Your task to perform on an android device: Open Yahoo.com Image 0: 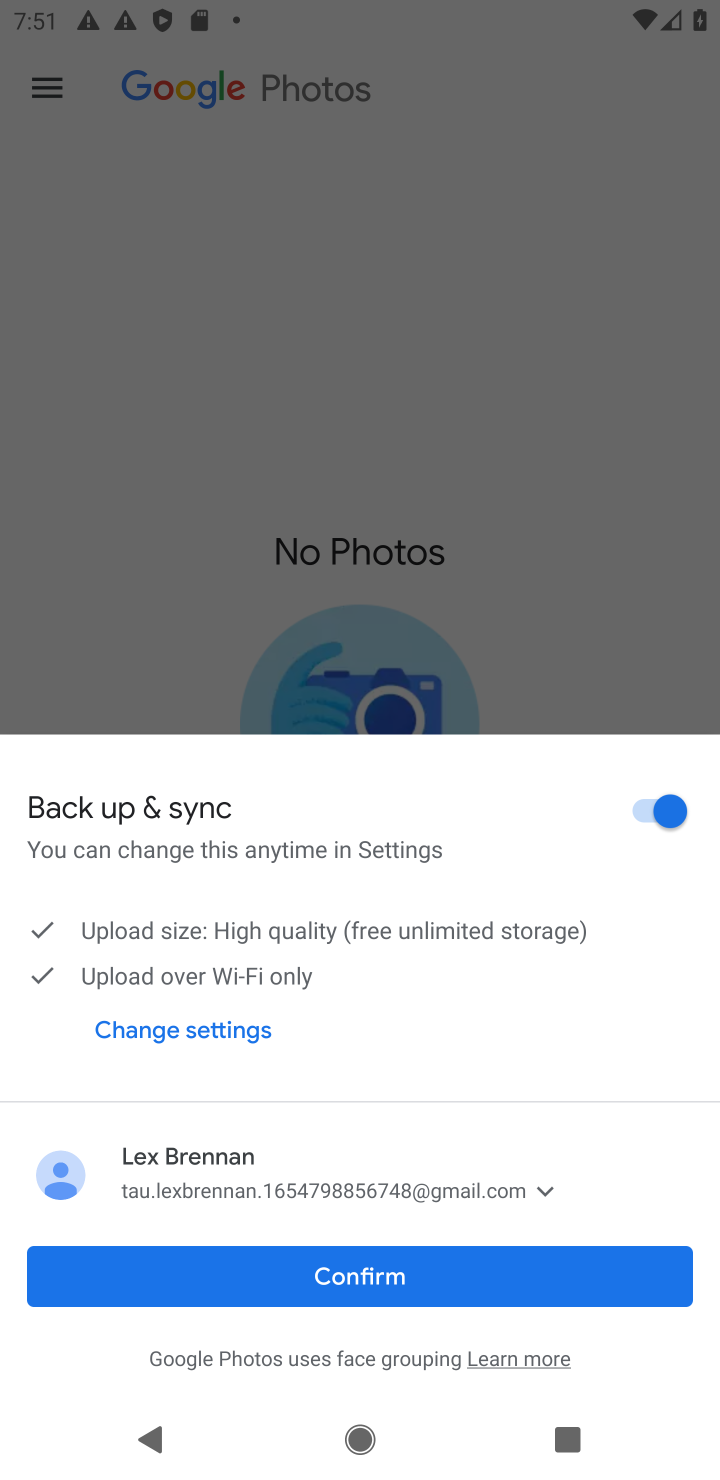
Step 0: click (656, 1285)
Your task to perform on an android device: Open Yahoo.com Image 1: 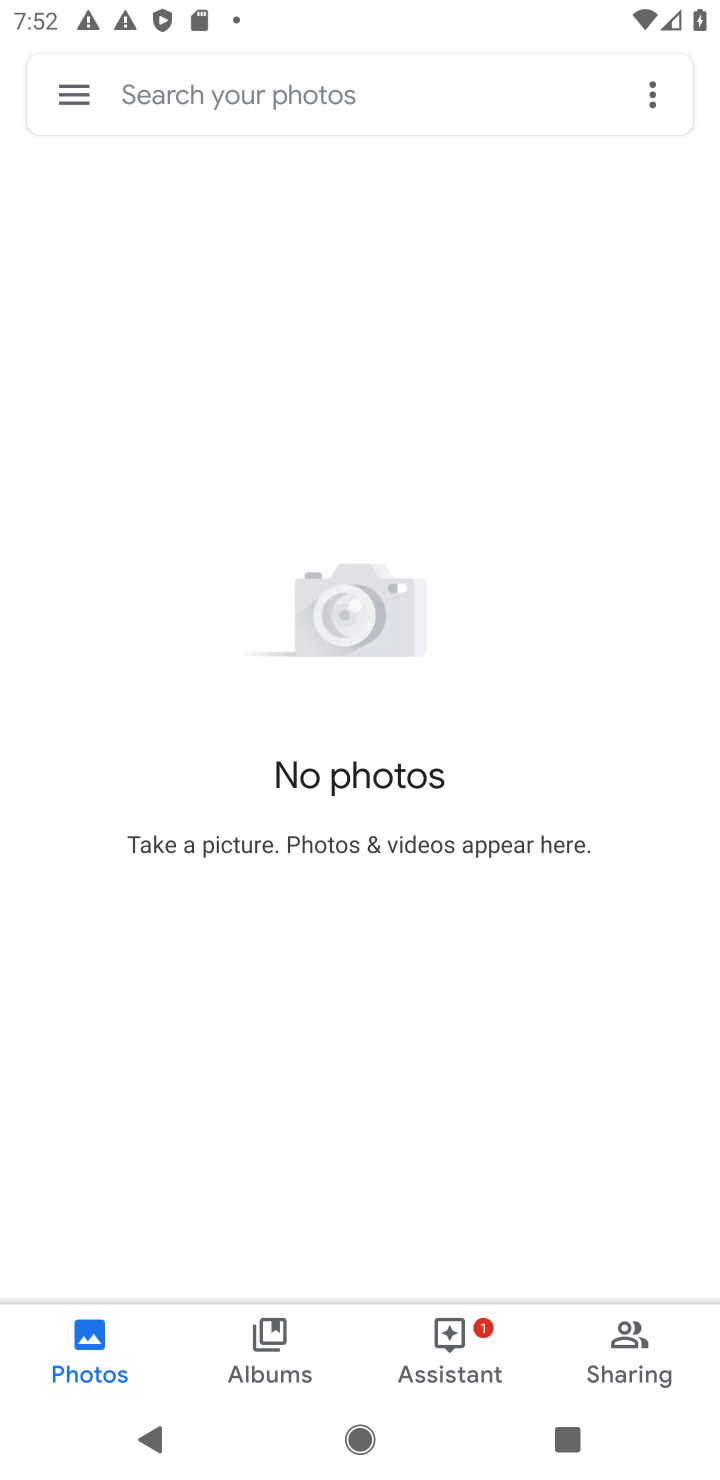
Step 1: press home button
Your task to perform on an android device: Open Yahoo.com Image 2: 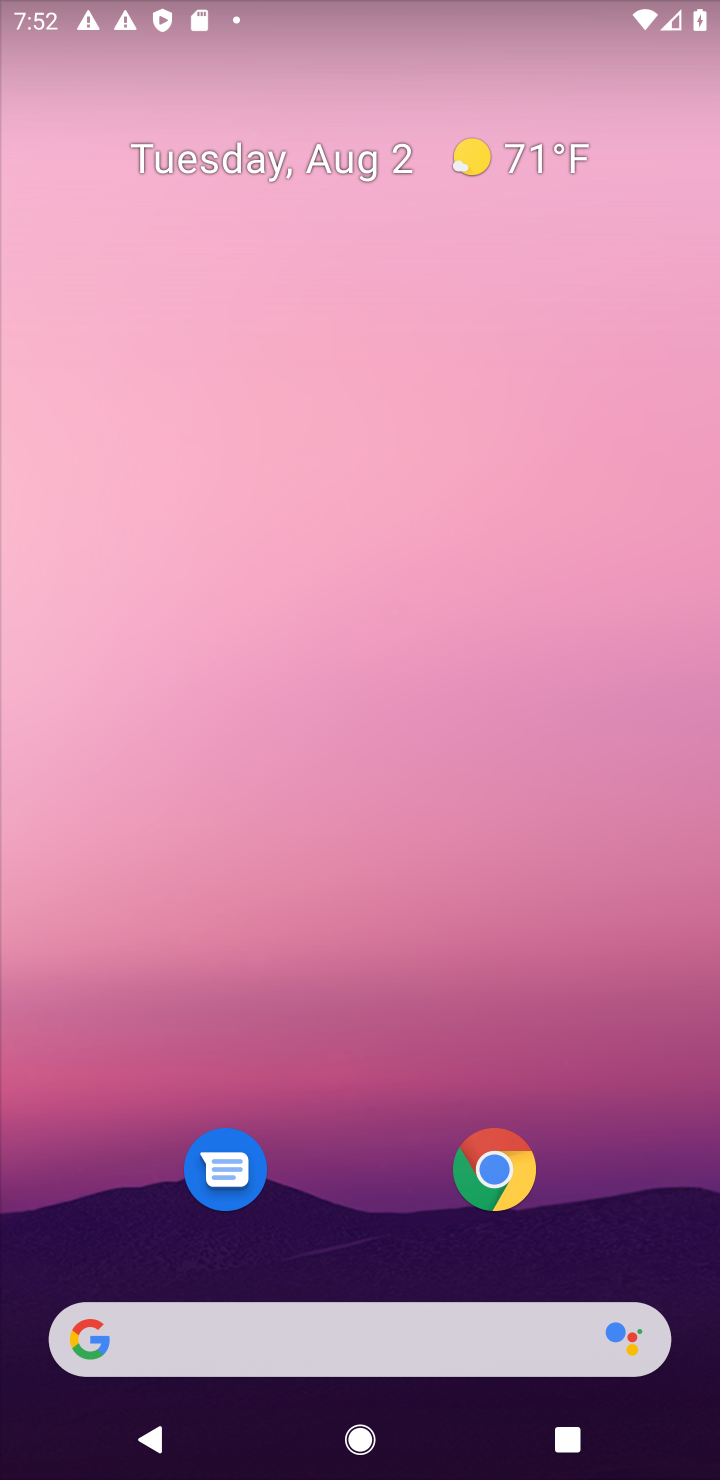
Step 2: click (329, 1325)
Your task to perform on an android device: Open Yahoo.com Image 3: 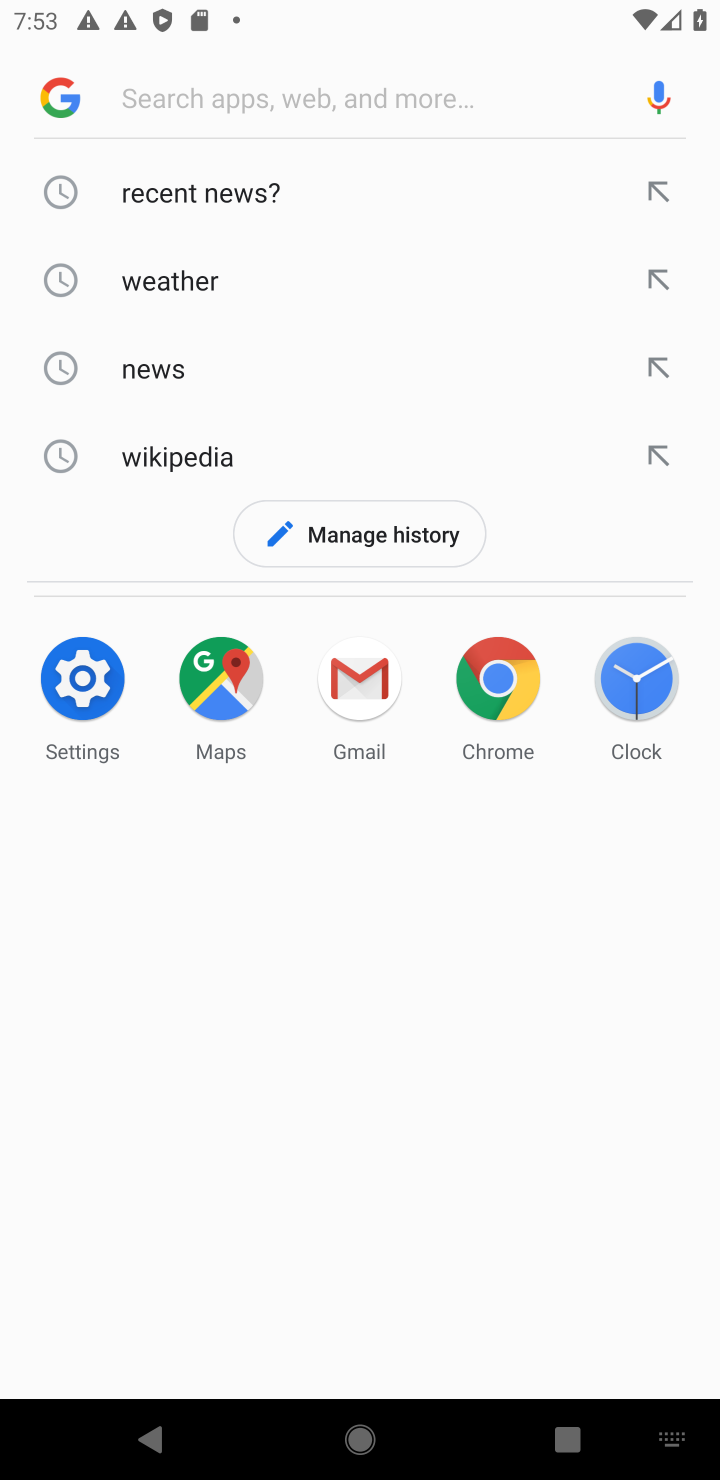
Step 3: type "yahoo.com"
Your task to perform on an android device: Open Yahoo.com Image 4: 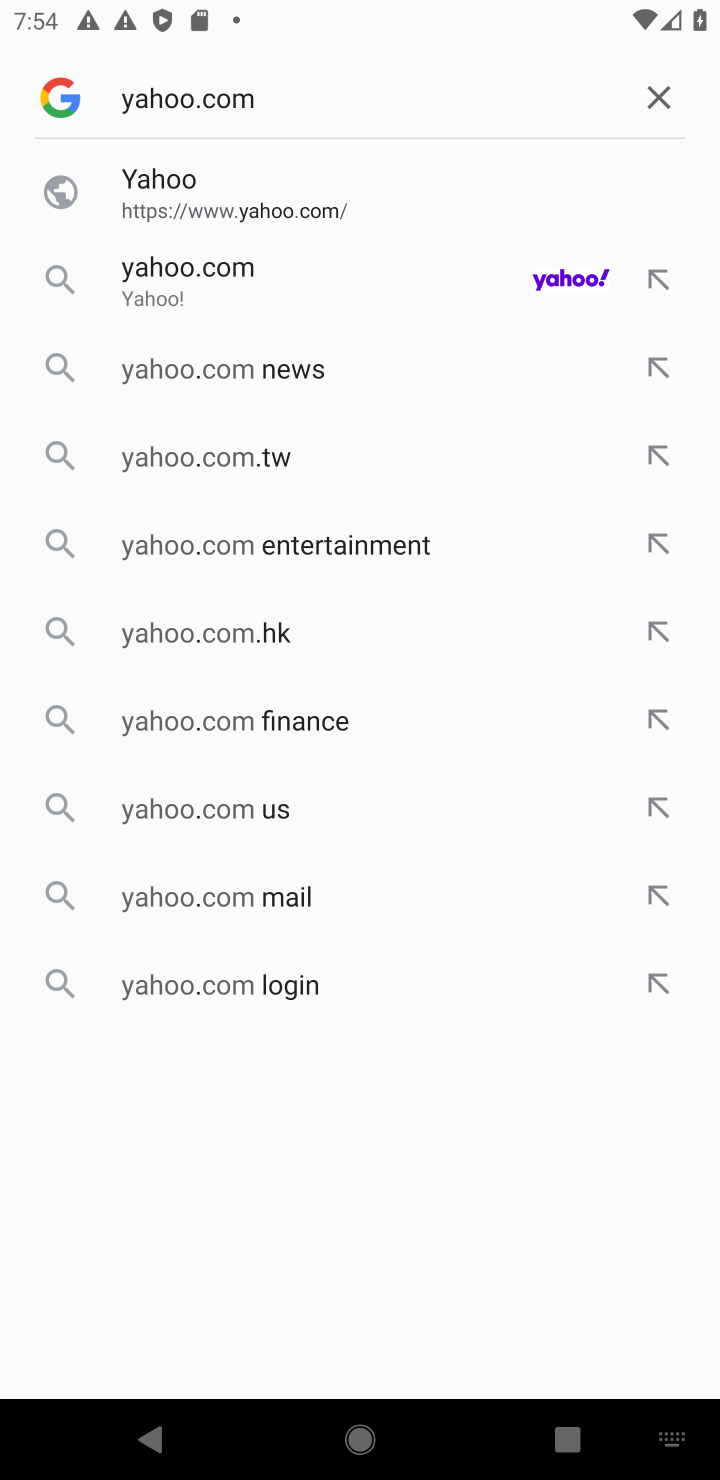
Step 4: click (650, 264)
Your task to perform on an android device: Open Yahoo.com Image 5: 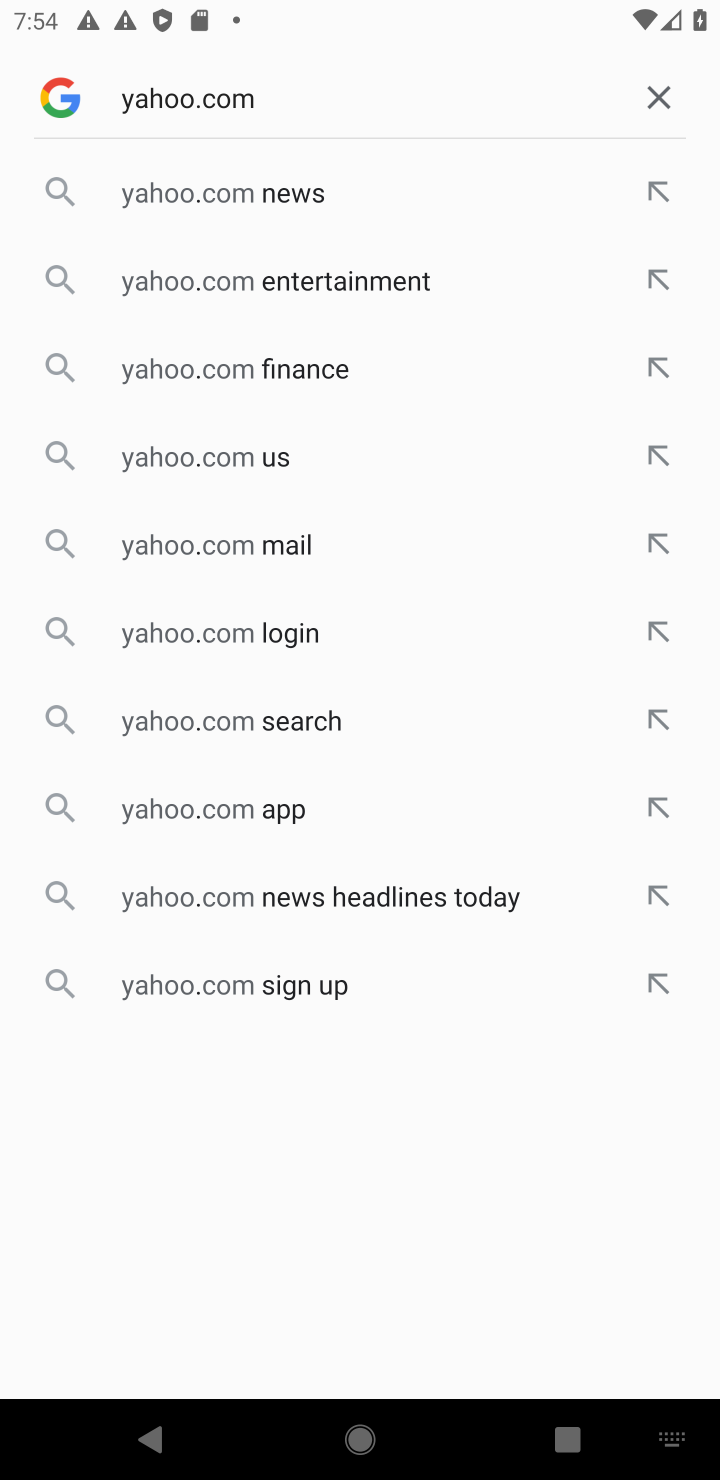
Step 5: type " "
Your task to perform on an android device: Open Yahoo.com Image 6: 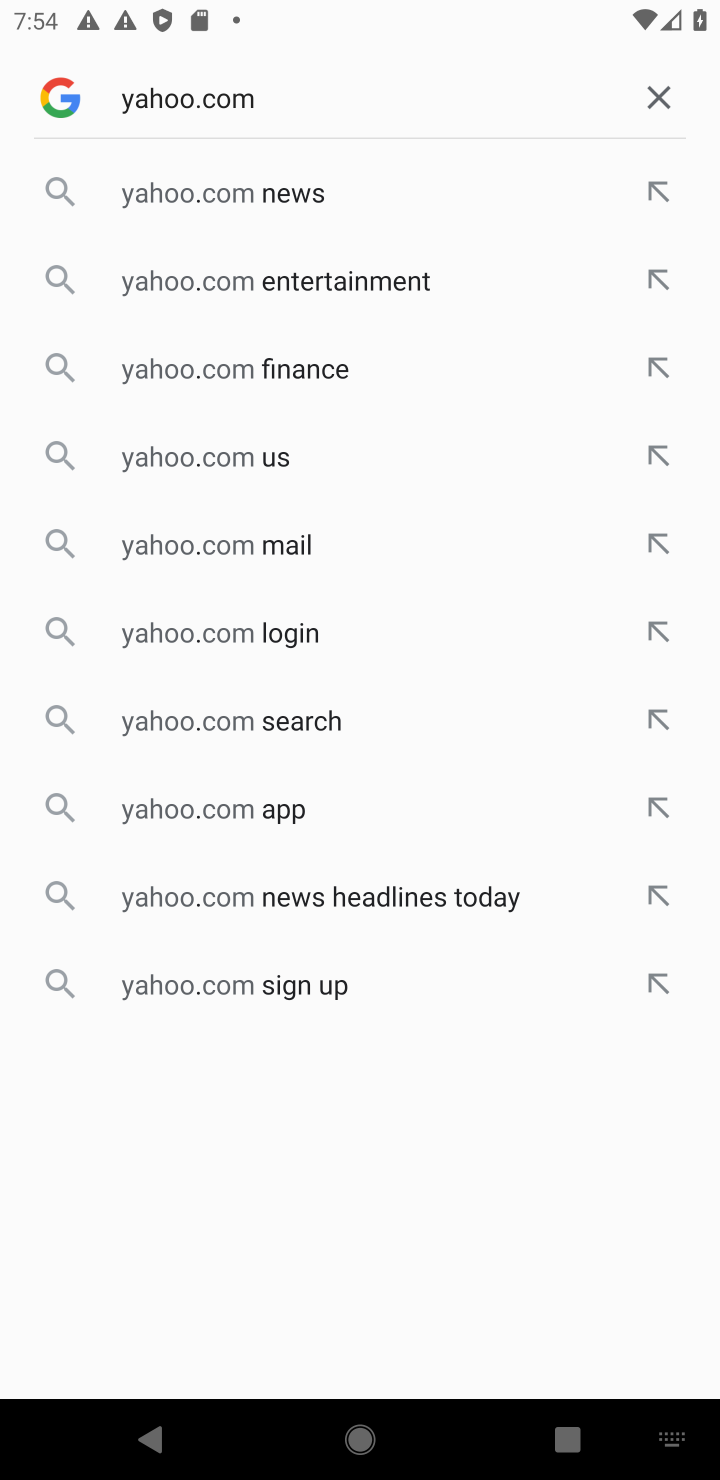
Step 6: click (659, 100)
Your task to perform on an android device: Open Yahoo.com Image 7: 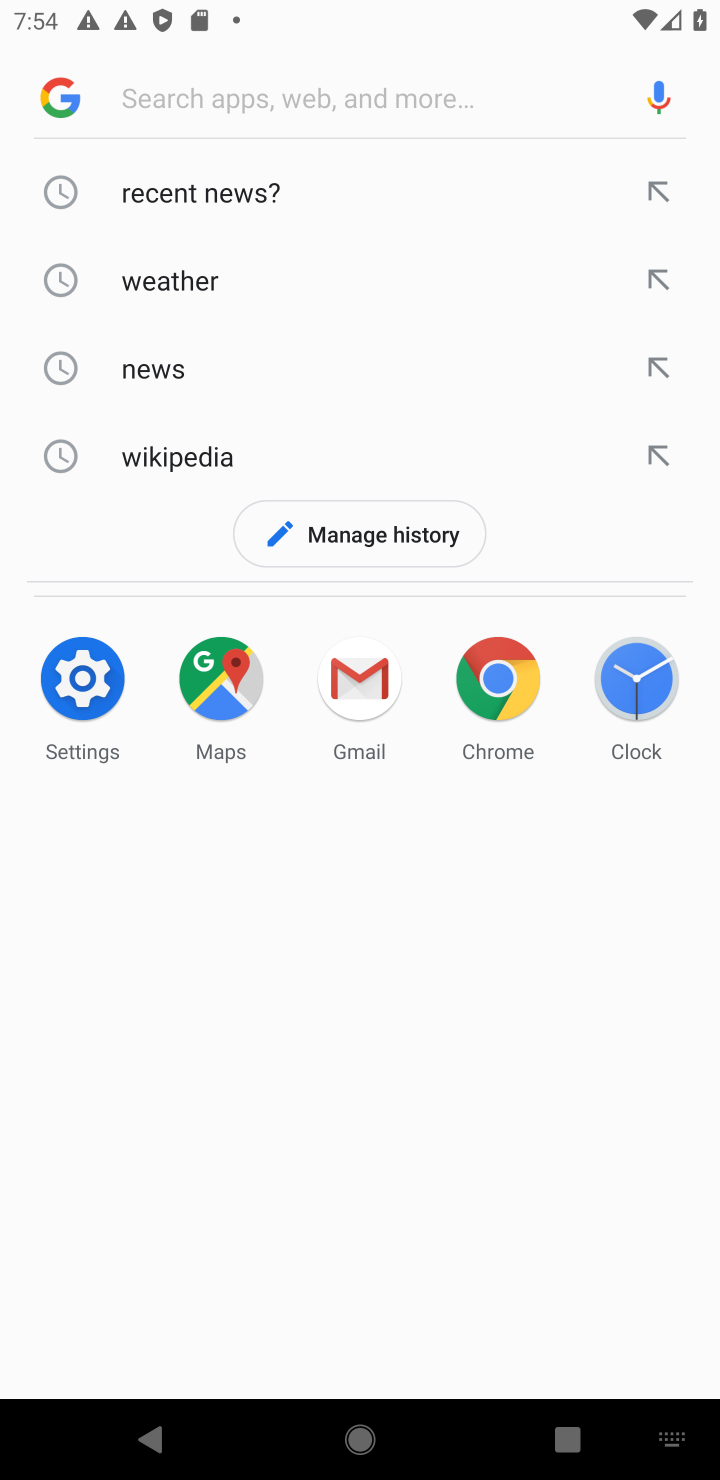
Step 7: type "yahoo.com"
Your task to perform on an android device: Open Yahoo.com Image 8: 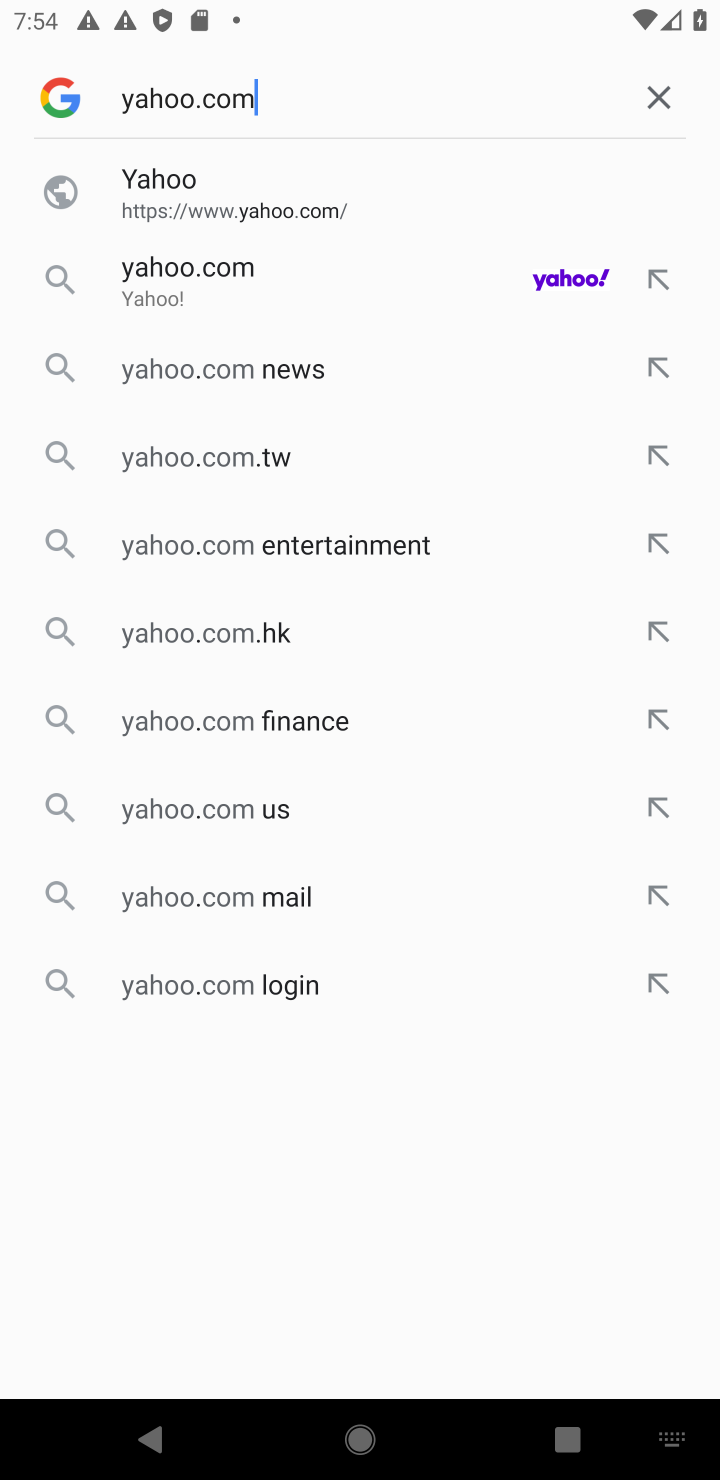
Step 8: click (571, 269)
Your task to perform on an android device: Open Yahoo.com Image 9: 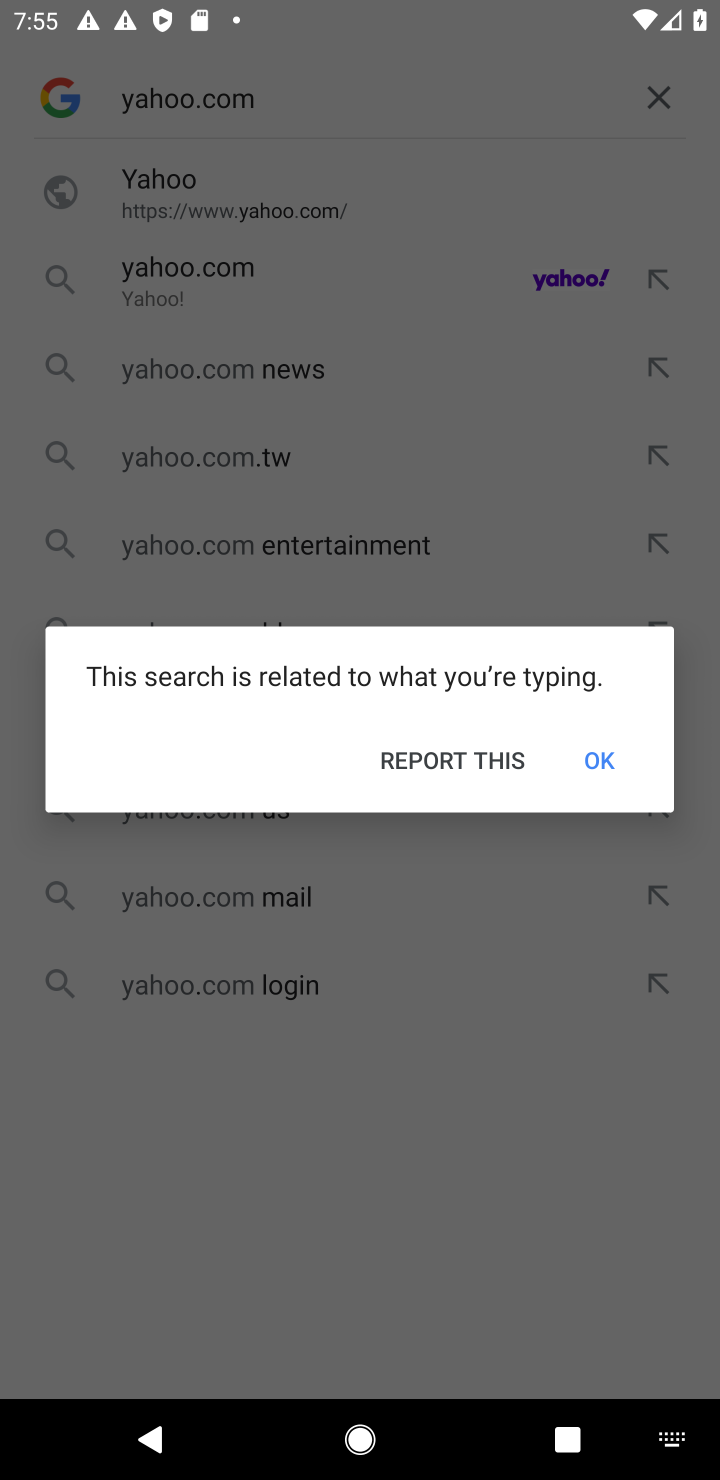
Step 9: click (604, 762)
Your task to perform on an android device: Open Yahoo.com Image 10: 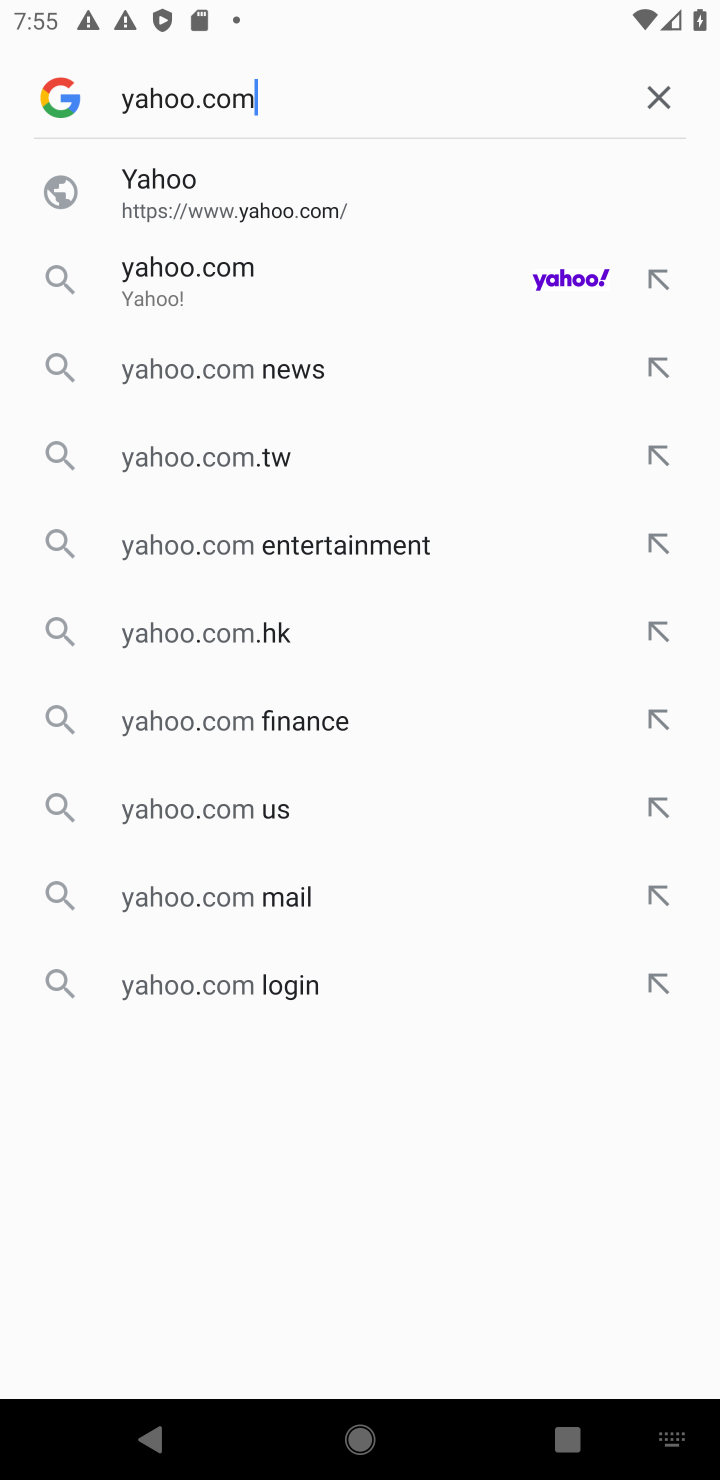
Step 10: click (206, 194)
Your task to perform on an android device: Open Yahoo.com Image 11: 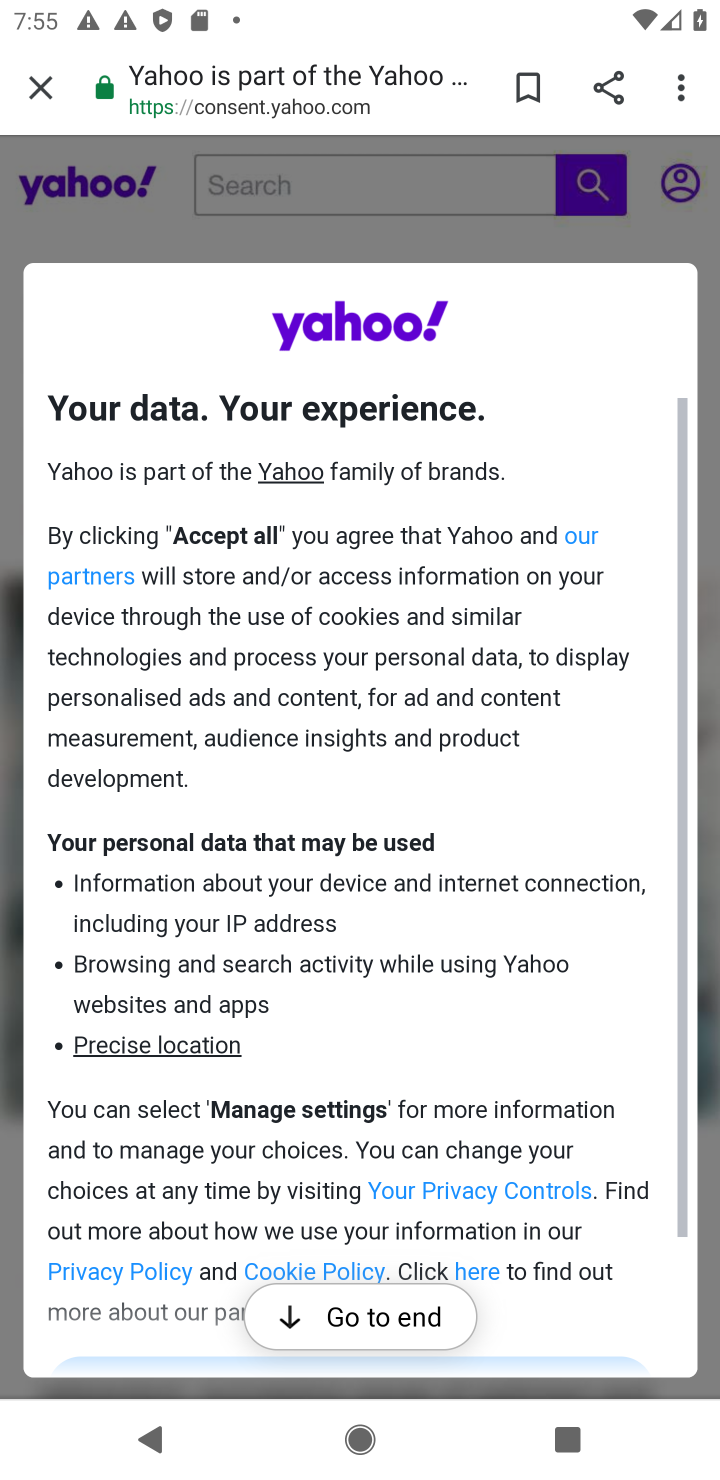
Step 11: click (437, 1305)
Your task to perform on an android device: Open Yahoo.com Image 12: 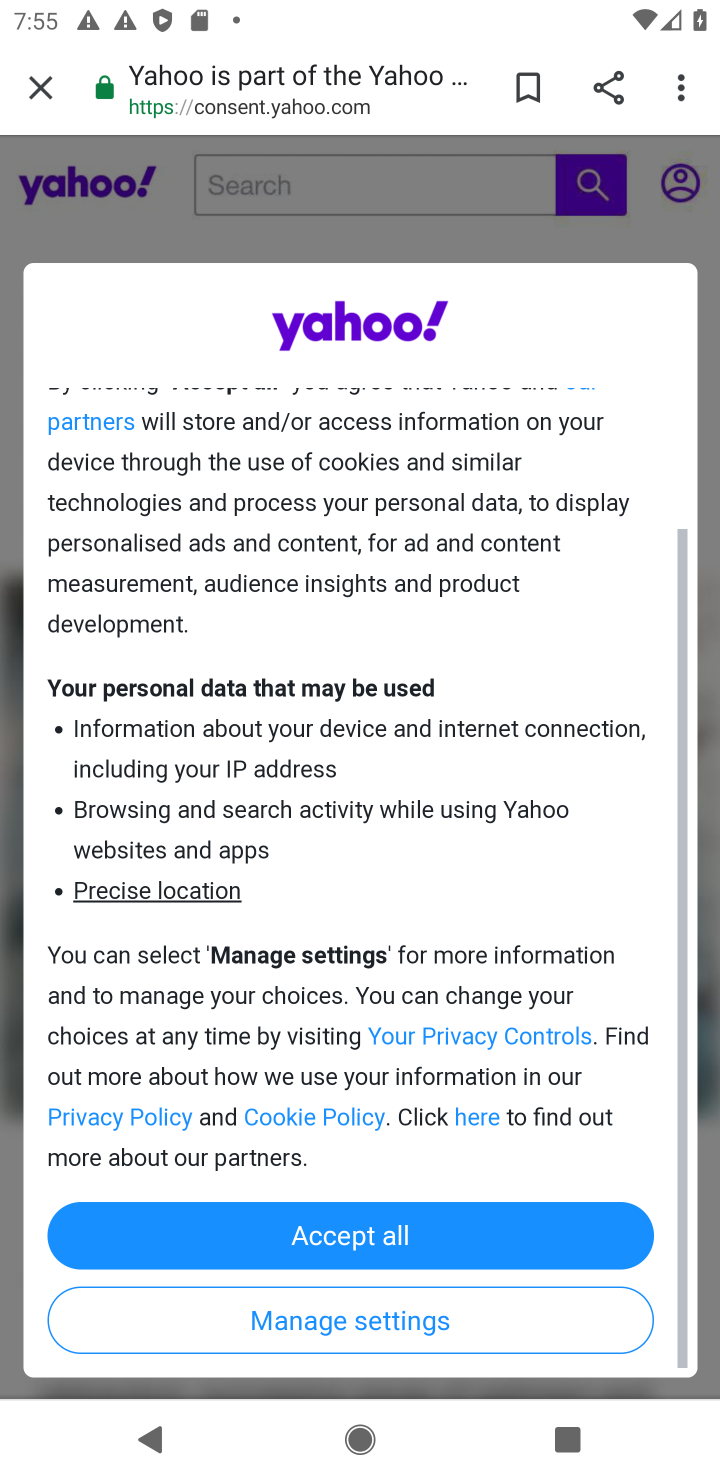
Step 12: click (456, 1252)
Your task to perform on an android device: Open Yahoo.com Image 13: 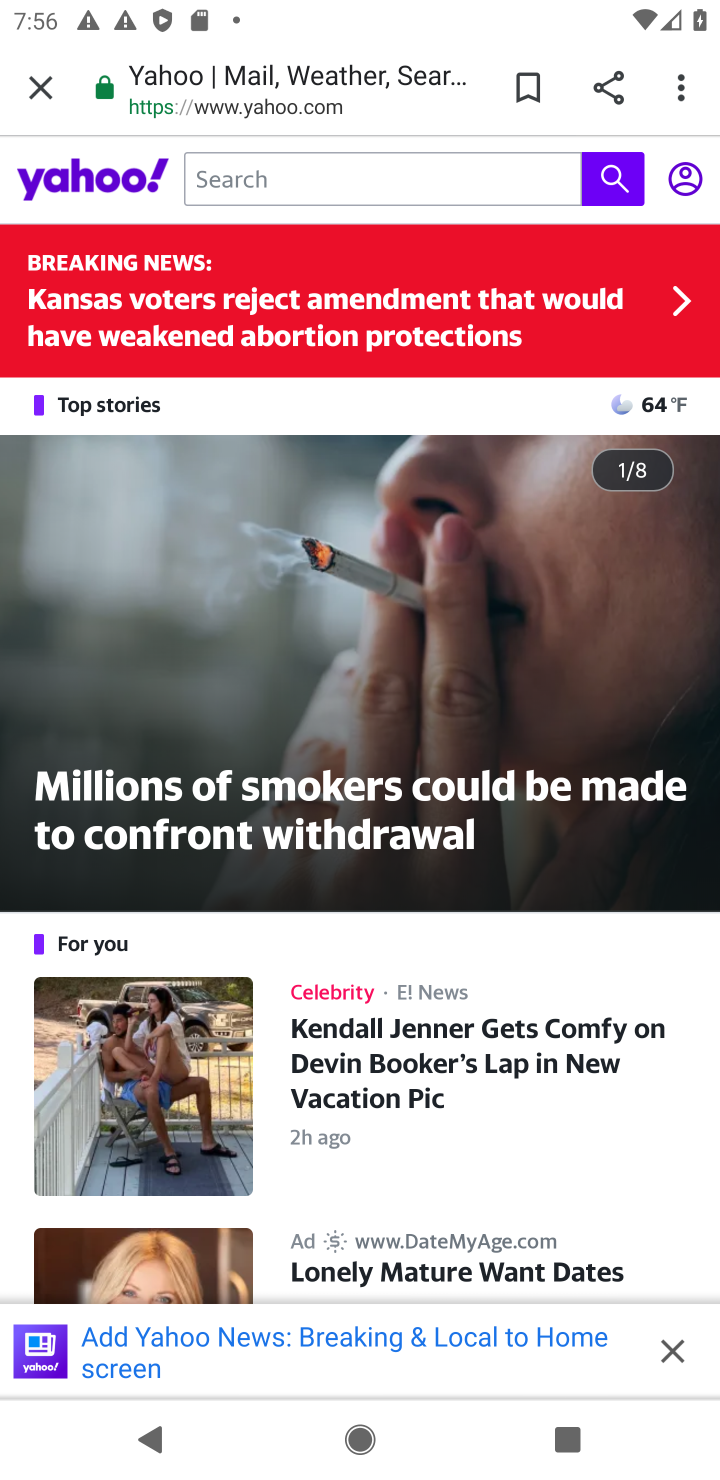
Step 13: task complete